Your task to perform on an android device: Go to Google maps Image 0: 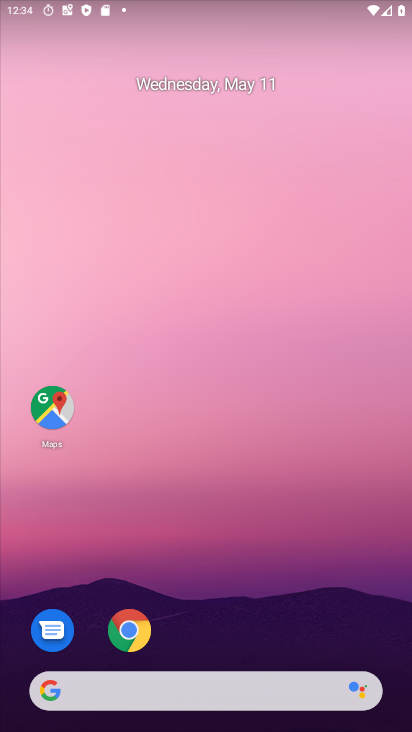
Step 0: click (58, 390)
Your task to perform on an android device: Go to Google maps Image 1: 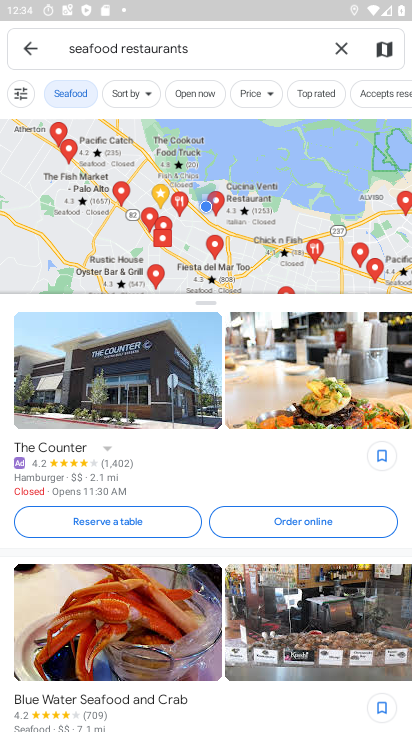
Step 1: task complete